Your task to perform on an android device: show emergency info Image 0: 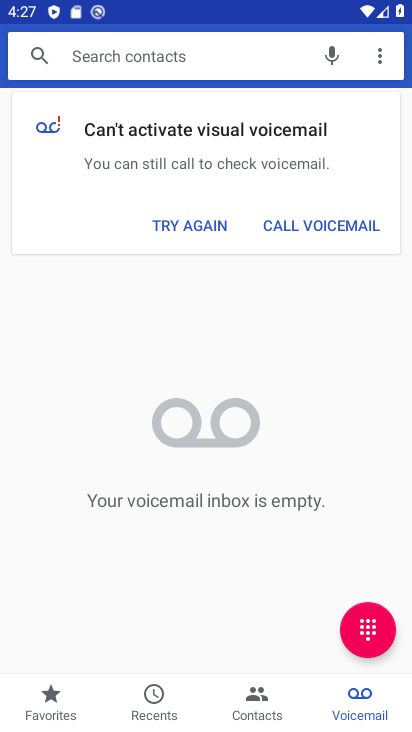
Step 0: press home button
Your task to perform on an android device: show emergency info Image 1: 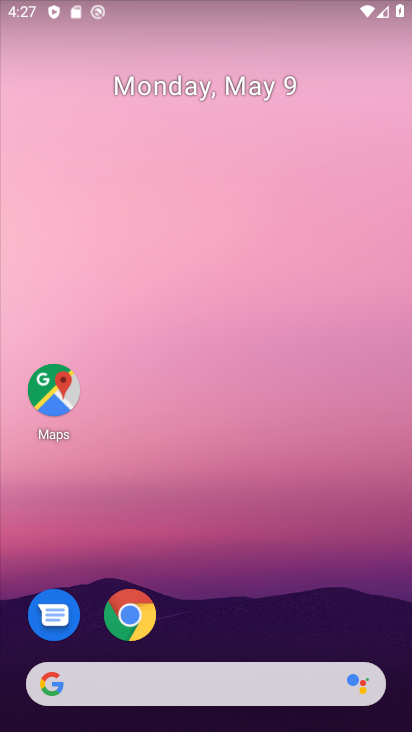
Step 1: drag from (213, 650) to (228, 239)
Your task to perform on an android device: show emergency info Image 2: 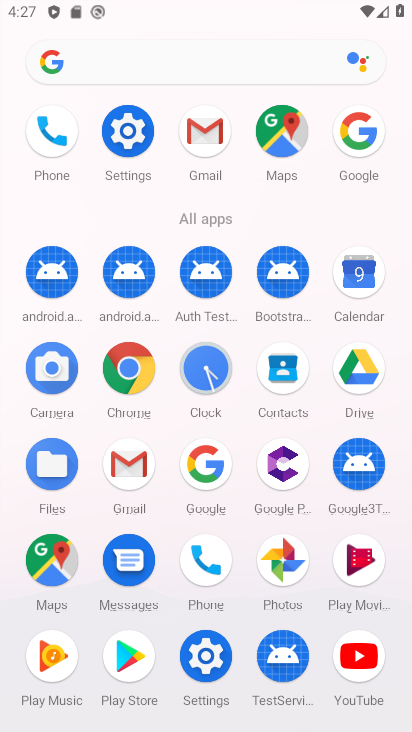
Step 2: click (135, 129)
Your task to perform on an android device: show emergency info Image 3: 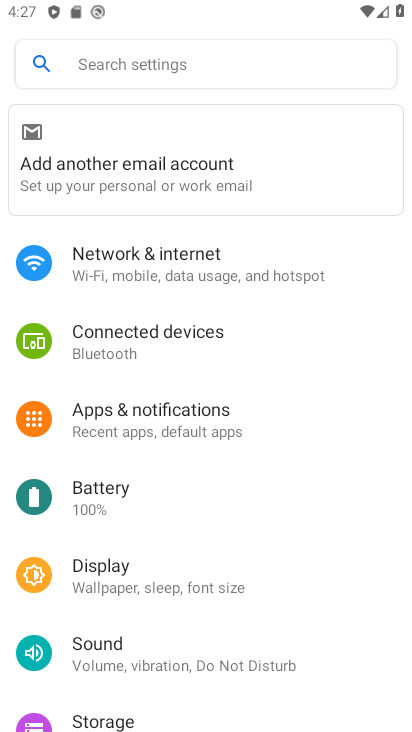
Step 3: drag from (171, 715) to (208, 253)
Your task to perform on an android device: show emergency info Image 4: 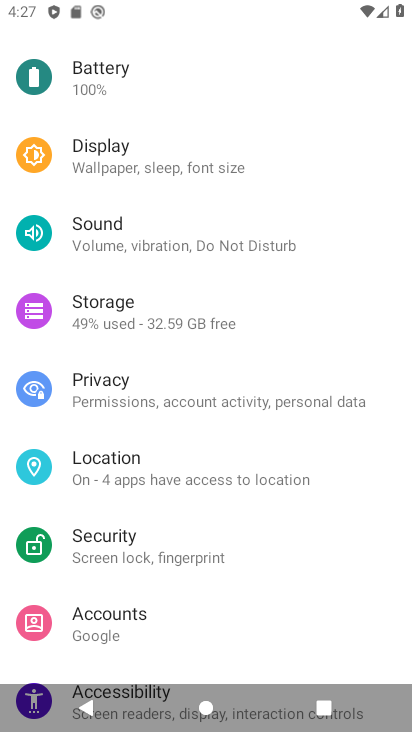
Step 4: drag from (167, 643) to (188, 321)
Your task to perform on an android device: show emergency info Image 5: 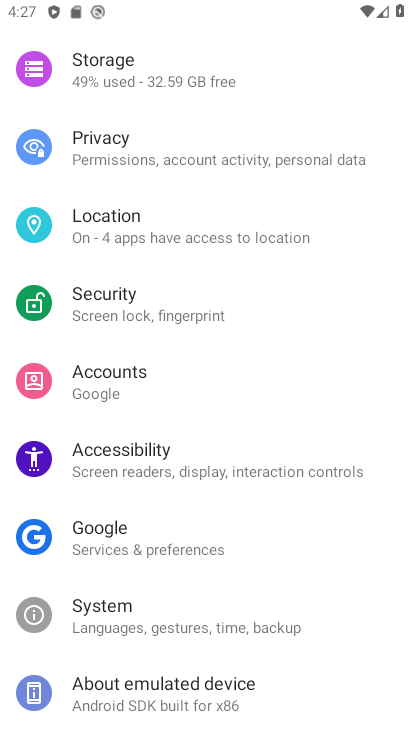
Step 5: click (147, 696)
Your task to perform on an android device: show emergency info Image 6: 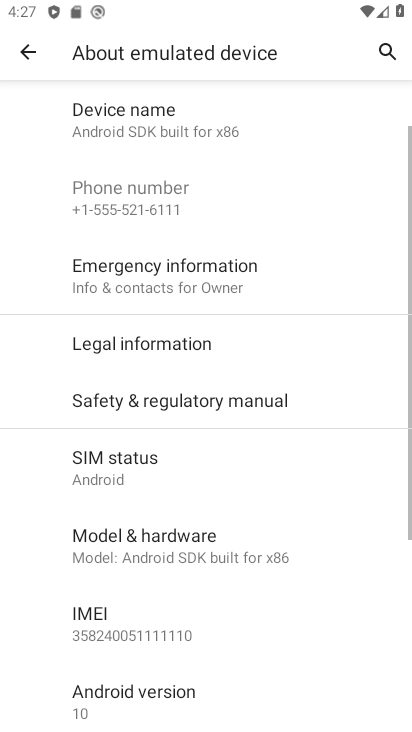
Step 6: click (232, 271)
Your task to perform on an android device: show emergency info Image 7: 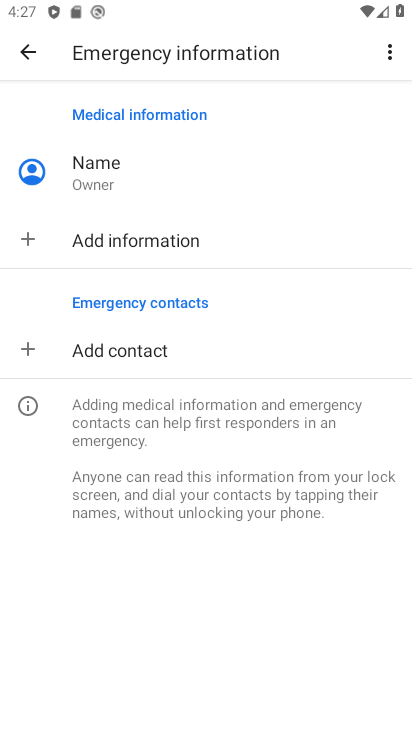
Step 7: task complete